Your task to perform on an android device: turn on javascript in the chrome app Image 0: 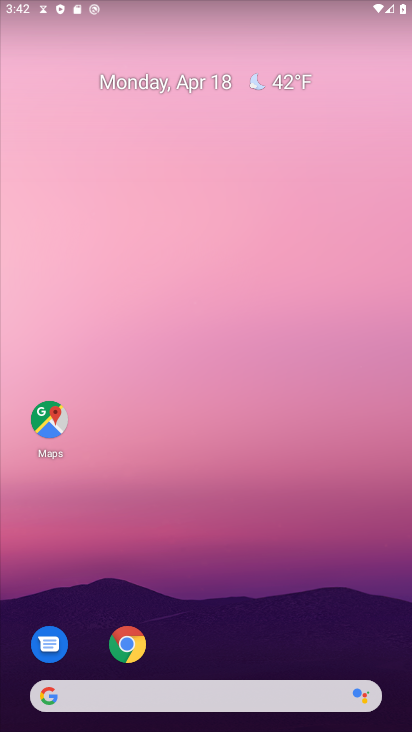
Step 0: click (122, 638)
Your task to perform on an android device: turn on javascript in the chrome app Image 1: 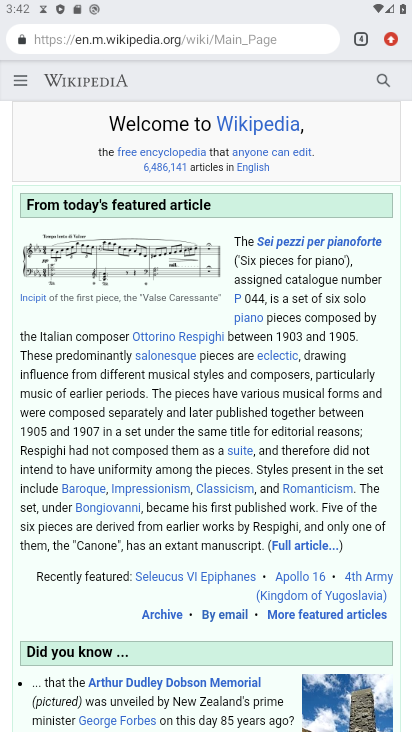
Step 1: click (390, 37)
Your task to perform on an android device: turn on javascript in the chrome app Image 2: 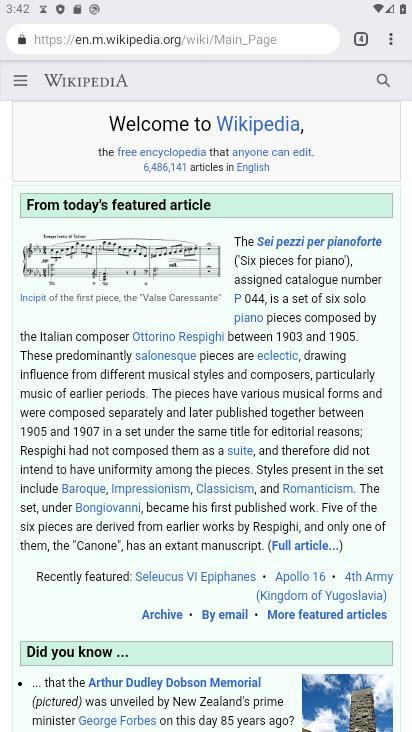
Step 2: click (388, 35)
Your task to perform on an android device: turn on javascript in the chrome app Image 3: 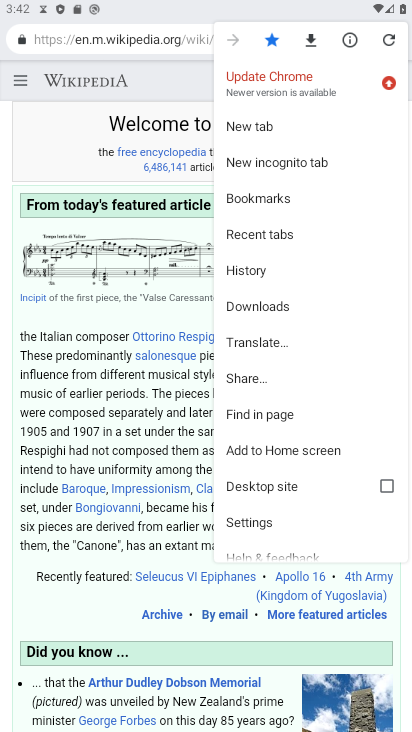
Step 3: click (267, 516)
Your task to perform on an android device: turn on javascript in the chrome app Image 4: 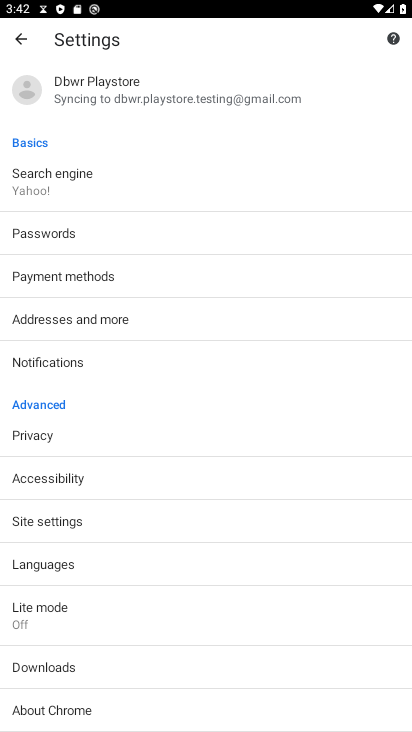
Step 4: click (65, 521)
Your task to perform on an android device: turn on javascript in the chrome app Image 5: 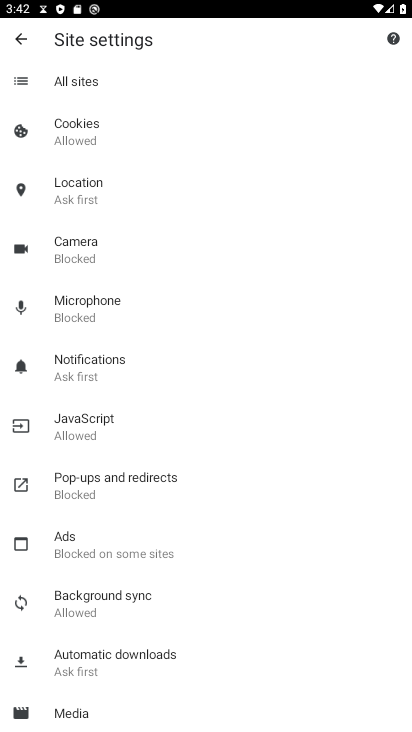
Step 5: click (80, 426)
Your task to perform on an android device: turn on javascript in the chrome app Image 6: 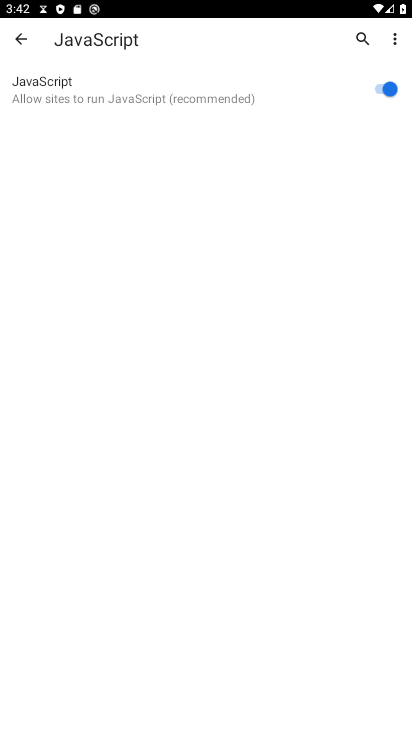
Step 6: task complete